Your task to perform on an android device: turn notification dots off Image 0: 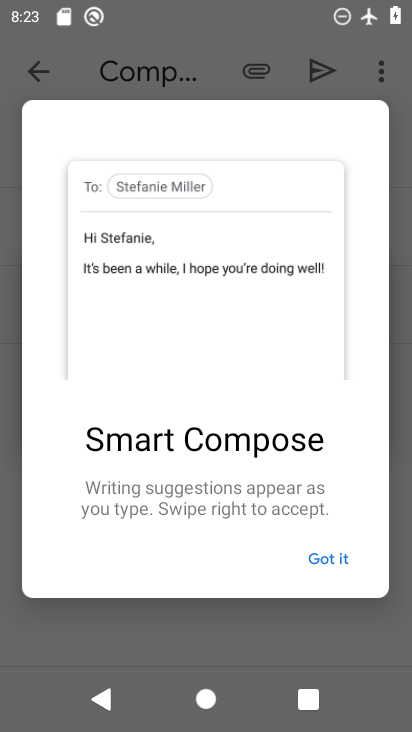
Step 0: press home button
Your task to perform on an android device: turn notification dots off Image 1: 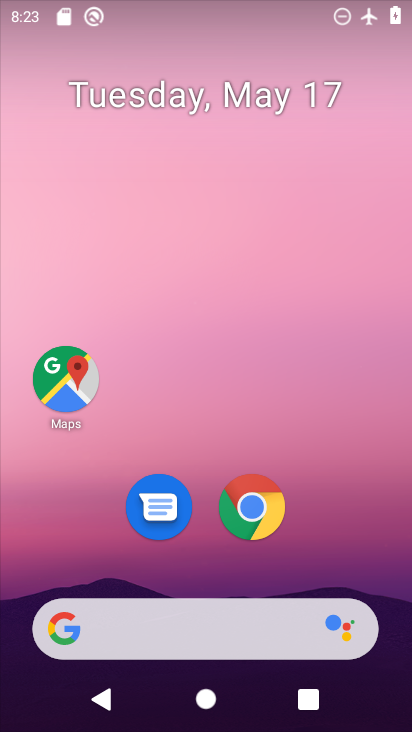
Step 1: drag from (340, 572) to (252, 6)
Your task to perform on an android device: turn notification dots off Image 2: 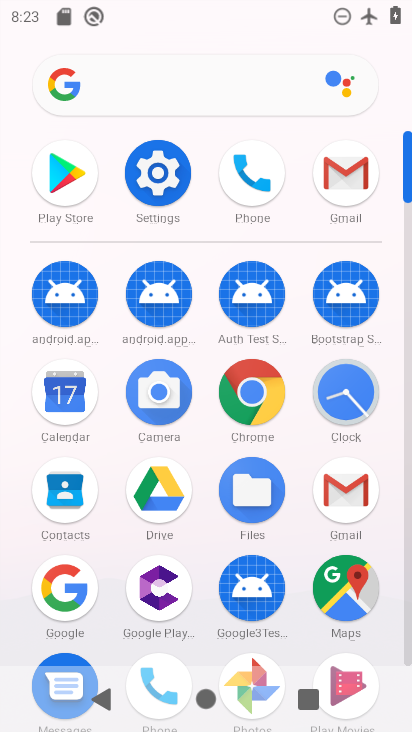
Step 2: click (157, 173)
Your task to perform on an android device: turn notification dots off Image 3: 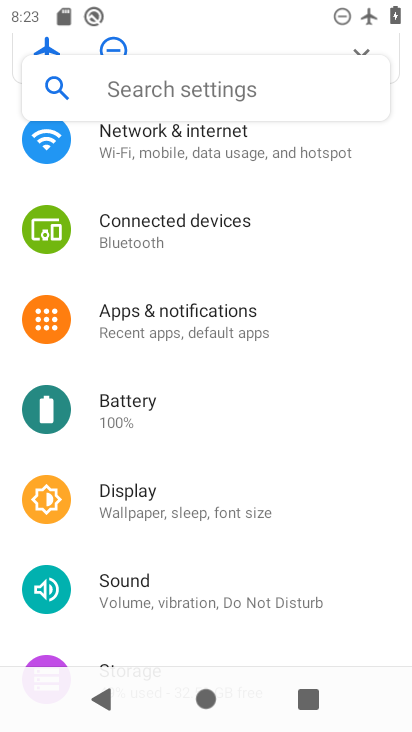
Step 3: click (165, 330)
Your task to perform on an android device: turn notification dots off Image 4: 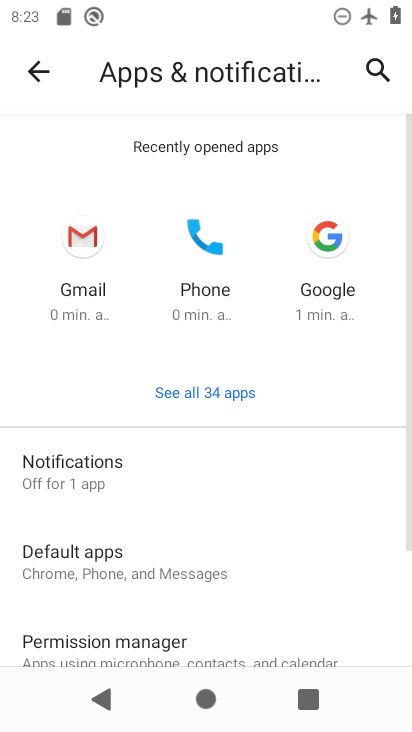
Step 4: click (68, 472)
Your task to perform on an android device: turn notification dots off Image 5: 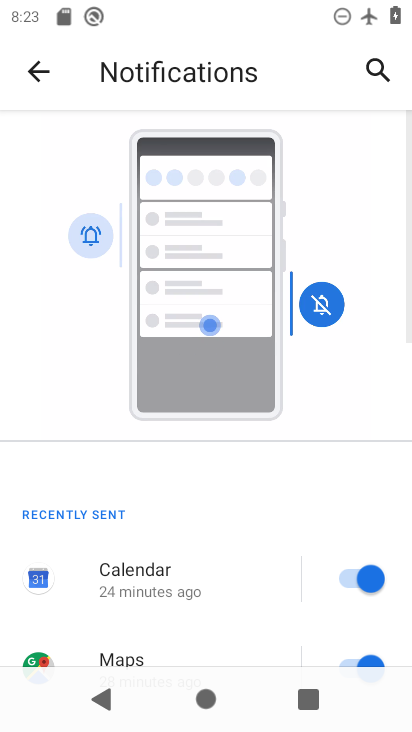
Step 5: drag from (197, 593) to (158, 65)
Your task to perform on an android device: turn notification dots off Image 6: 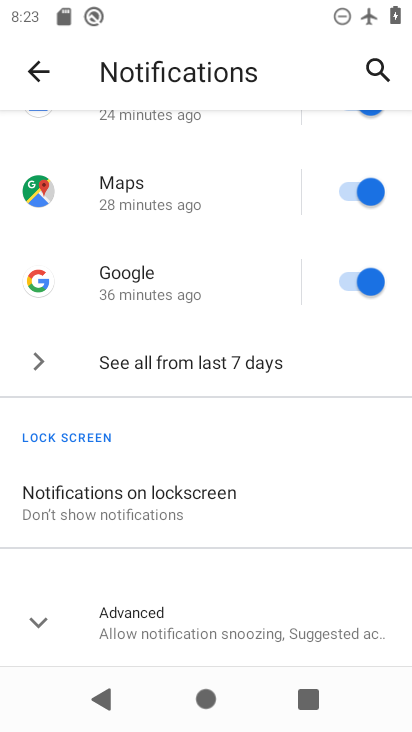
Step 6: click (32, 628)
Your task to perform on an android device: turn notification dots off Image 7: 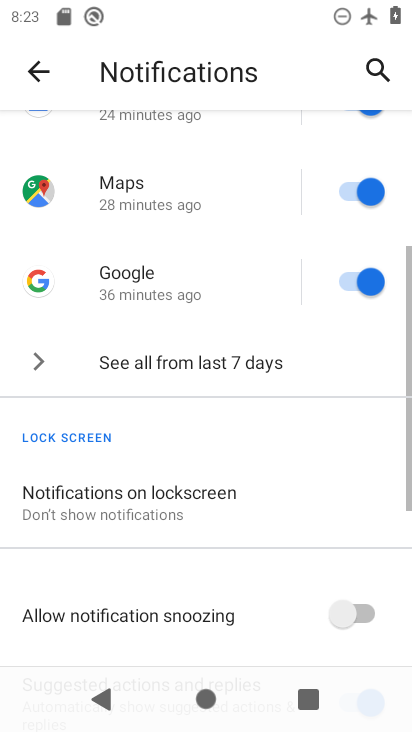
Step 7: task complete